Your task to perform on an android device: Do I have any events this weekend? Image 0: 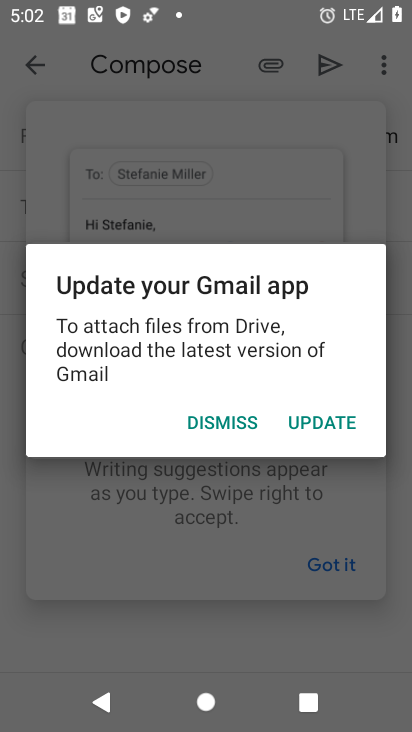
Step 0: press home button
Your task to perform on an android device: Do I have any events this weekend? Image 1: 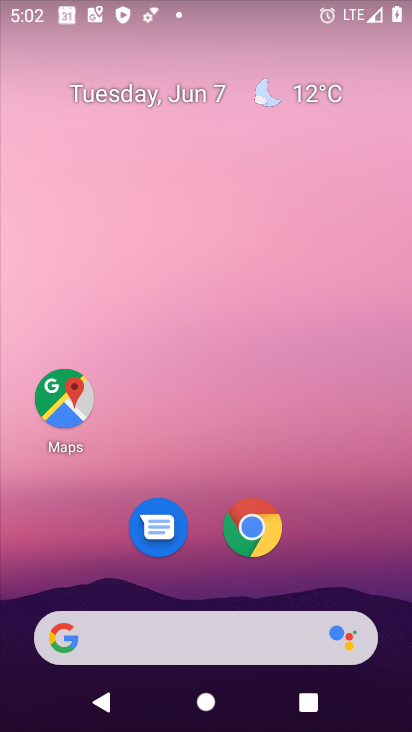
Step 1: drag from (315, 572) to (211, 43)
Your task to perform on an android device: Do I have any events this weekend? Image 2: 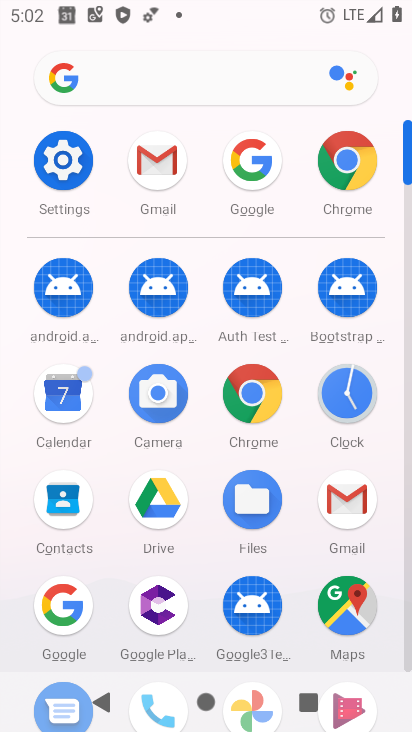
Step 2: click (63, 390)
Your task to perform on an android device: Do I have any events this weekend? Image 3: 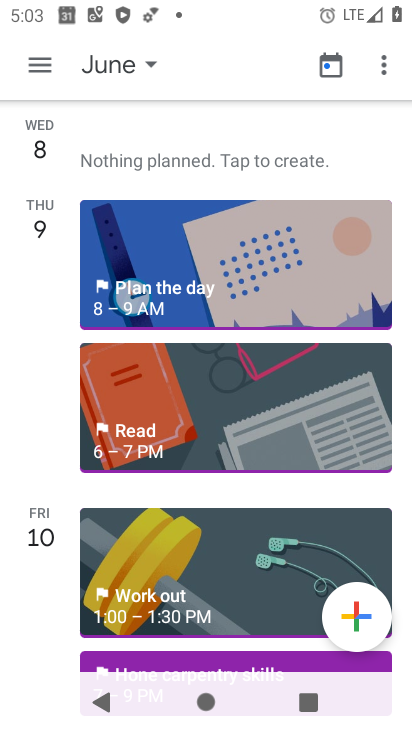
Step 3: click (329, 66)
Your task to perform on an android device: Do I have any events this weekend? Image 4: 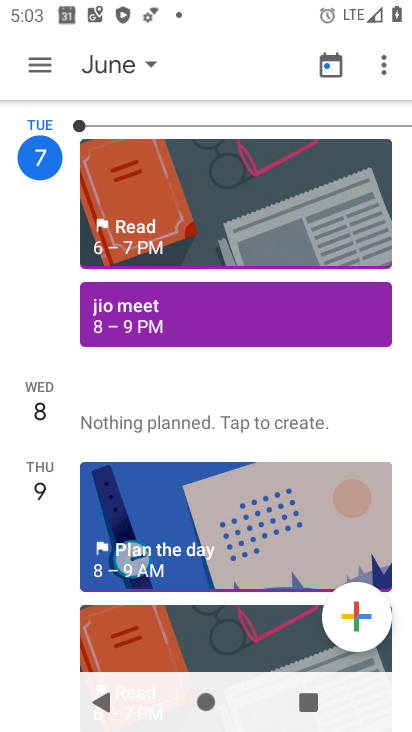
Step 4: click (146, 57)
Your task to perform on an android device: Do I have any events this weekend? Image 5: 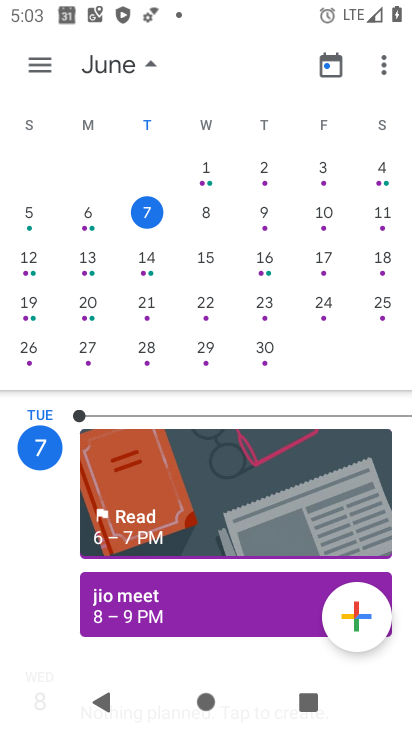
Step 5: click (376, 215)
Your task to perform on an android device: Do I have any events this weekend? Image 6: 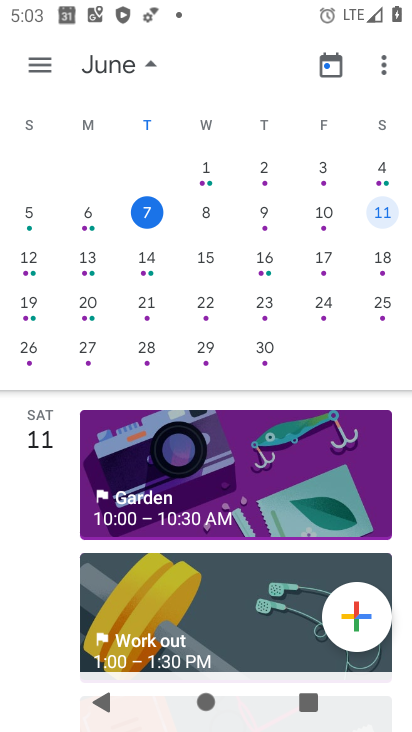
Step 6: click (43, 57)
Your task to perform on an android device: Do I have any events this weekend? Image 7: 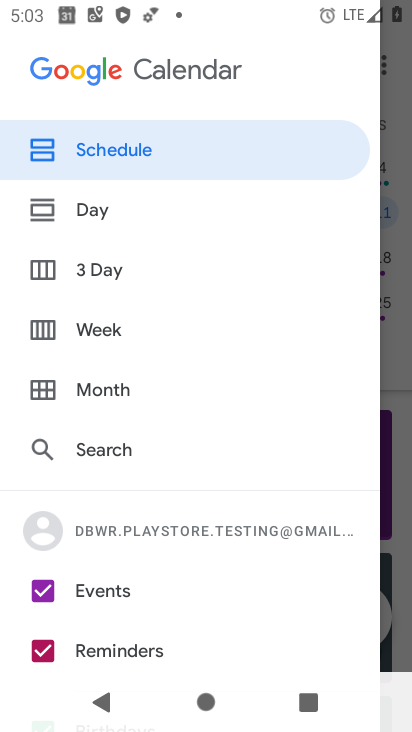
Step 7: click (99, 320)
Your task to perform on an android device: Do I have any events this weekend? Image 8: 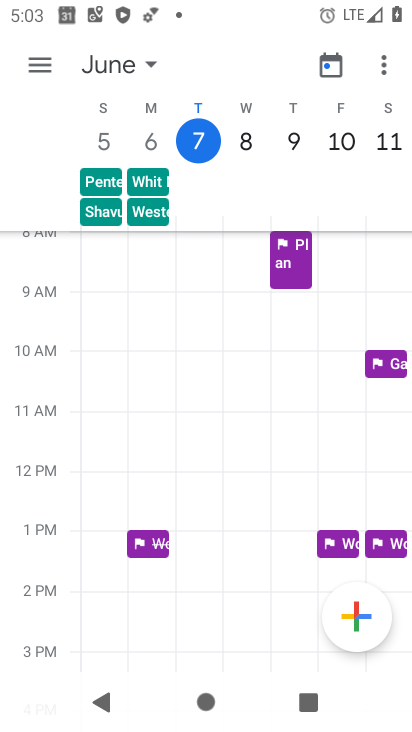
Step 8: task complete